Your task to perform on an android device: empty trash in the gmail app Image 0: 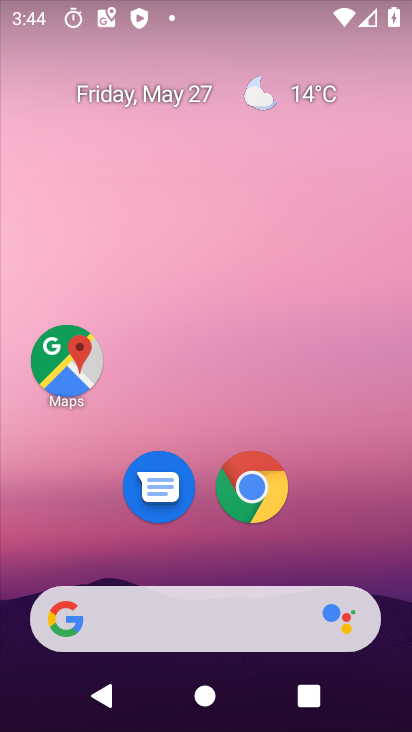
Step 0: drag from (341, 515) to (378, 63)
Your task to perform on an android device: empty trash in the gmail app Image 1: 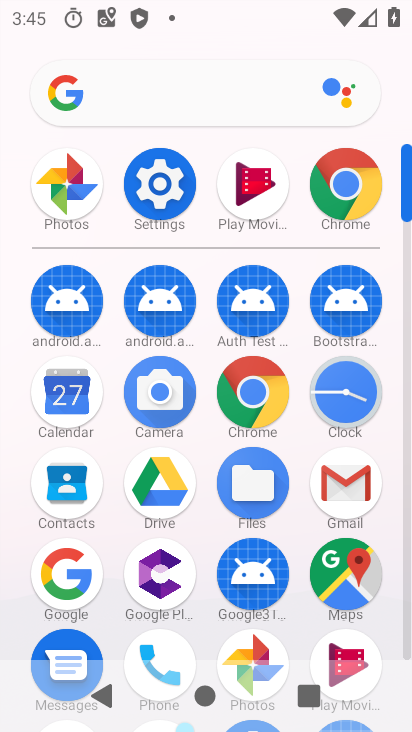
Step 1: click (342, 496)
Your task to perform on an android device: empty trash in the gmail app Image 2: 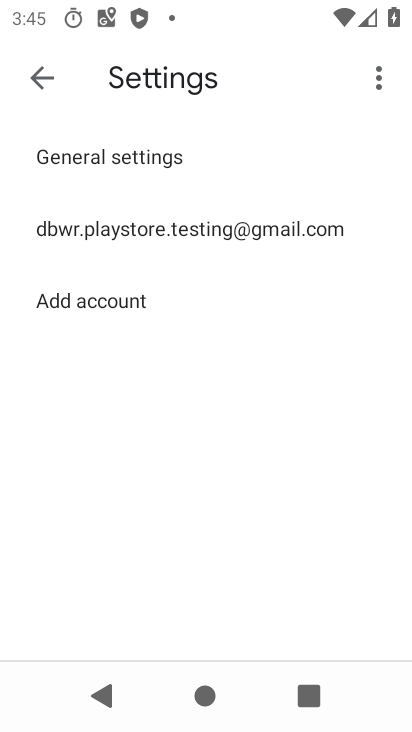
Step 2: click (45, 56)
Your task to perform on an android device: empty trash in the gmail app Image 3: 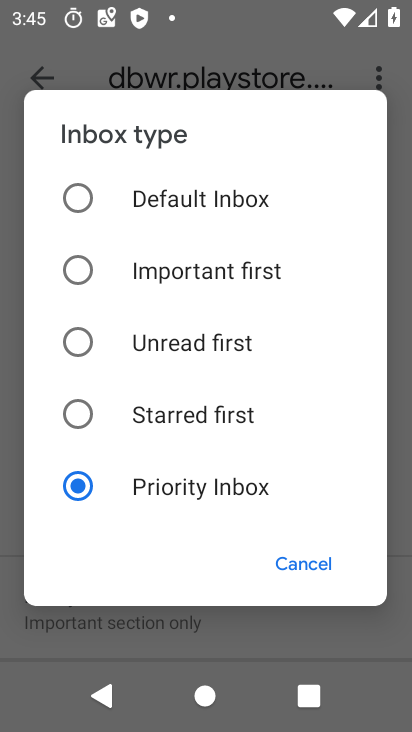
Step 3: click (299, 553)
Your task to perform on an android device: empty trash in the gmail app Image 4: 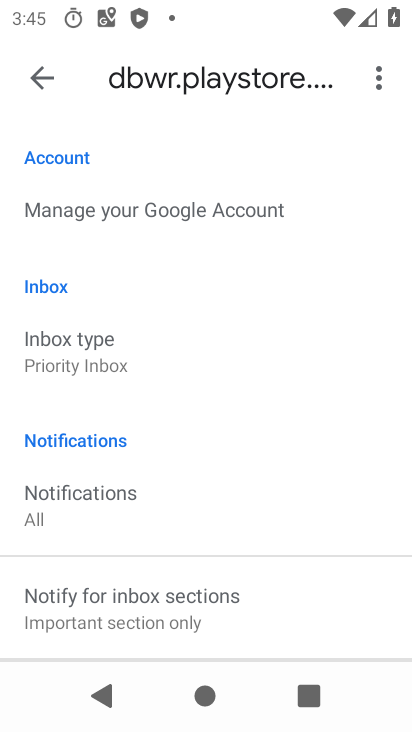
Step 4: click (38, 62)
Your task to perform on an android device: empty trash in the gmail app Image 5: 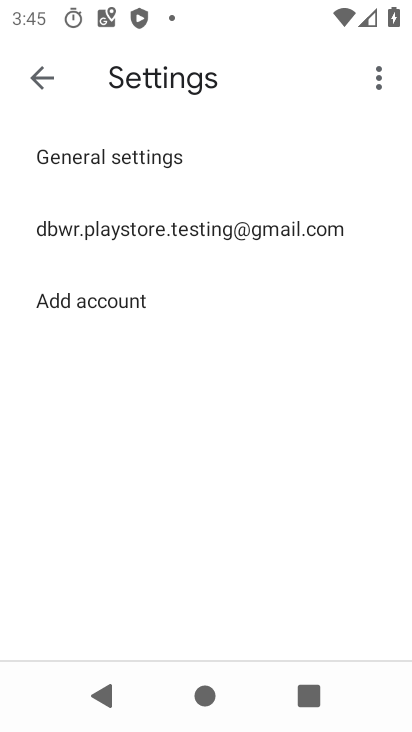
Step 5: click (39, 63)
Your task to perform on an android device: empty trash in the gmail app Image 6: 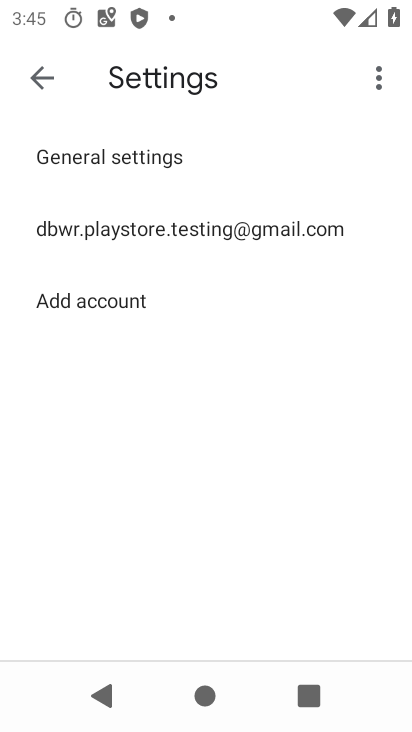
Step 6: click (40, 64)
Your task to perform on an android device: empty trash in the gmail app Image 7: 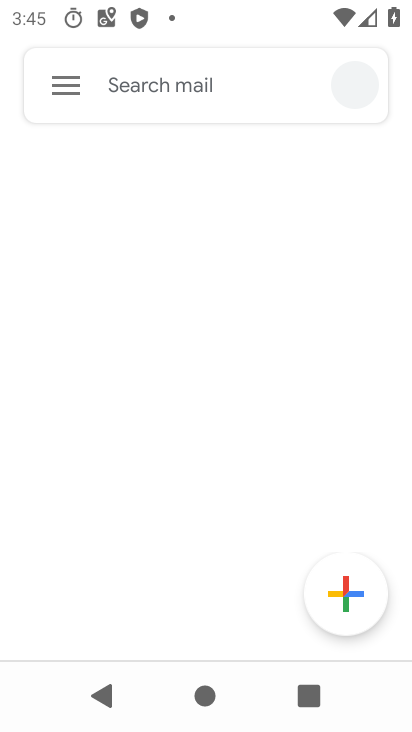
Step 7: click (43, 70)
Your task to perform on an android device: empty trash in the gmail app Image 8: 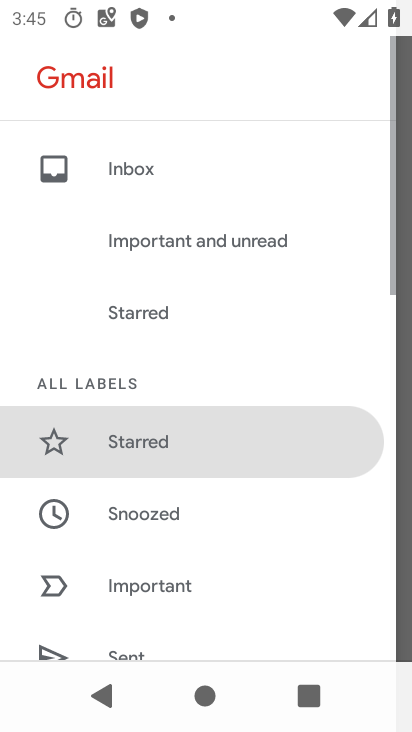
Step 8: drag from (156, 585) to (259, 71)
Your task to perform on an android device: empty trash in the gmail app Image 9: 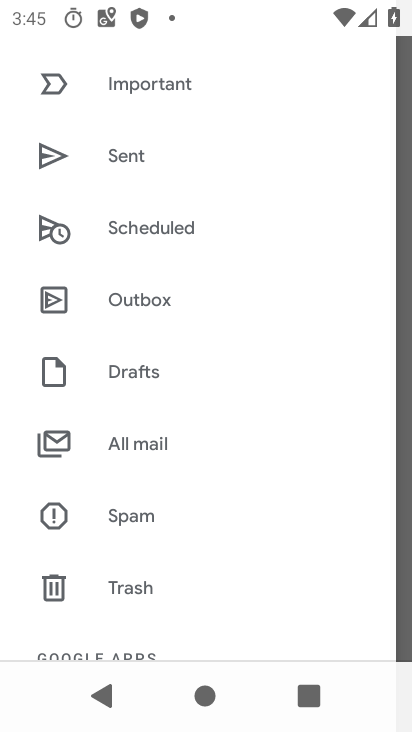
Step 9: click (128, 593)
Your task to perform on an android device: empty trash in the gmail app Image 10: 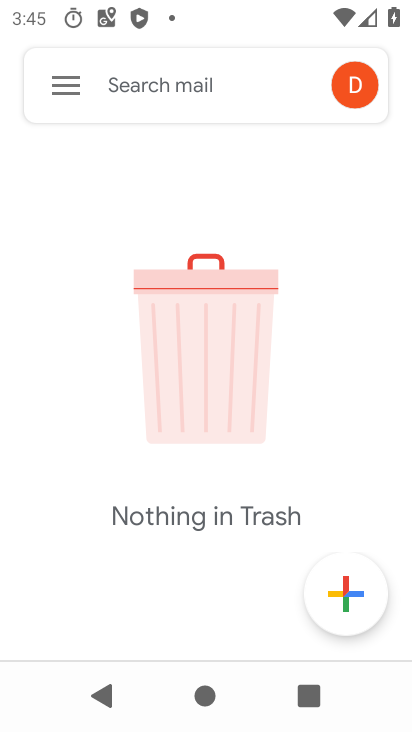
Step 10: task complete